Your task to perform on an android device: Go to calendar. Show me events next week Image 0: 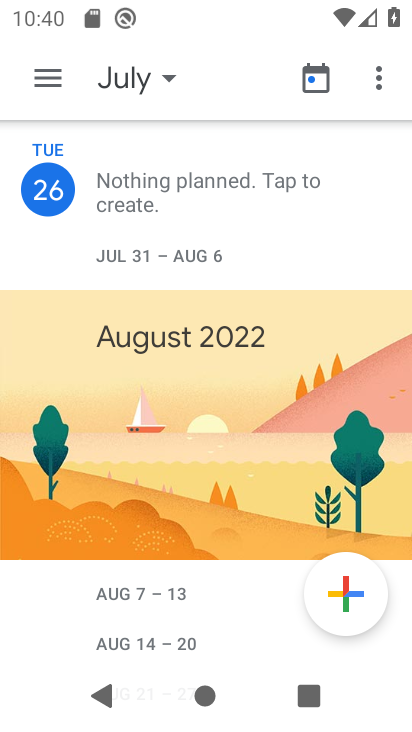
Step 0: press back button
Your task to perform on an android device: Go to calendar. Show me events next week Image 1: 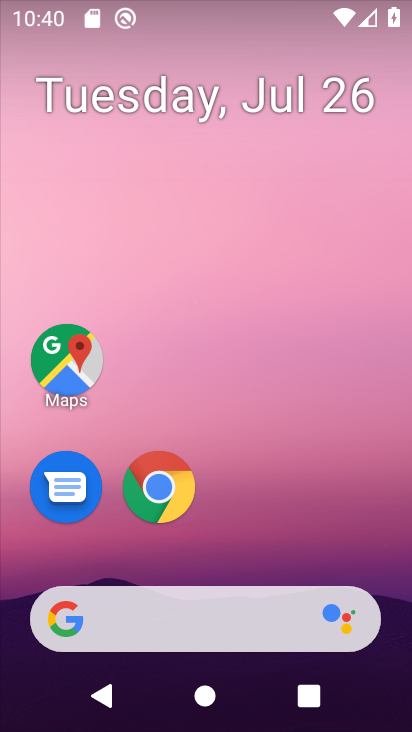
Step 1: drag from (193, 511) to (243, 3)
Your task to perform on an android device: Go to calendar. Show me events next week Image 2: 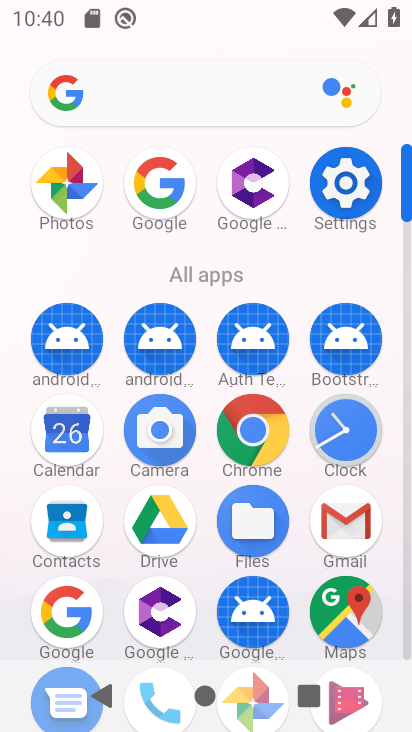
Step 2: click (60, 443)
Your task to perform on an android device: Go to calendar. Show me events next week Image 3: 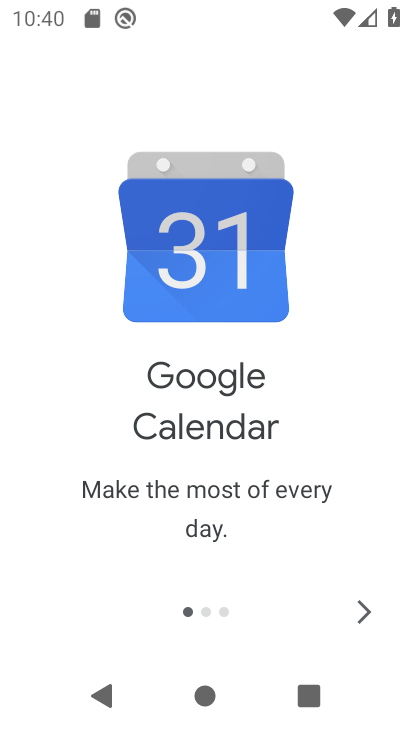
Step 3: click (348, 627)
Your task to perform on an android device: Go to calendar. Show me events next week Image 4: 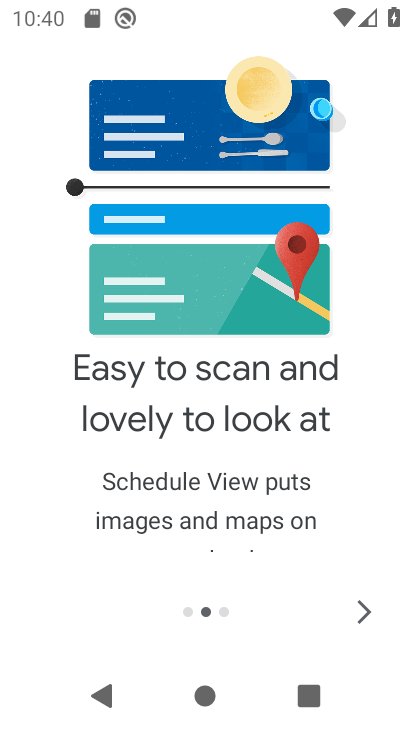
Step 4: click (349, 617)
Your task to perform on an android device: Go to calendar. Show me events next week Image 5: 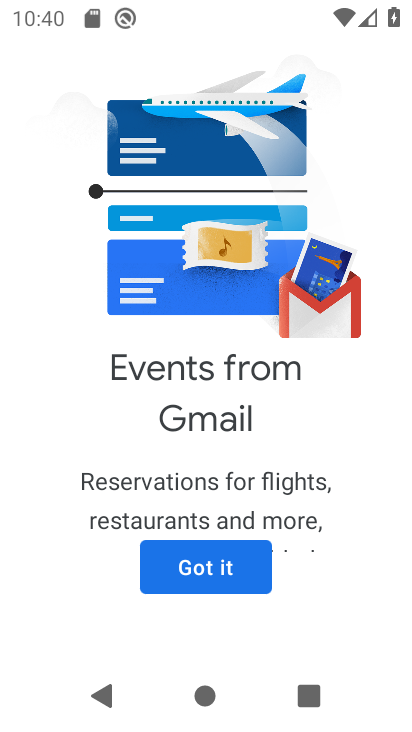
Step 5: click (232, 556)
Your task to perform on an android device: Go to calendar. Show me events next week Image 6: 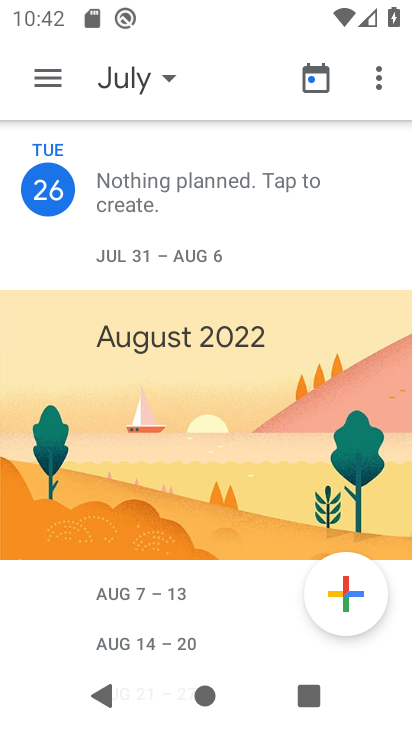
Step 6: click (160, 78)
Your task to perform on an android device: Go to calendar. Show me events next week Image 7: 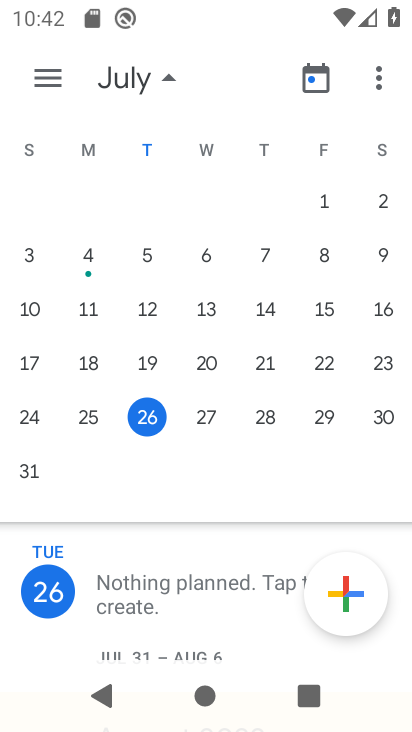
Step 7: drag from (381, 304) to (4, 316)
Your task to perform on an android device: Go to calendar. Show me events next week Image 8: 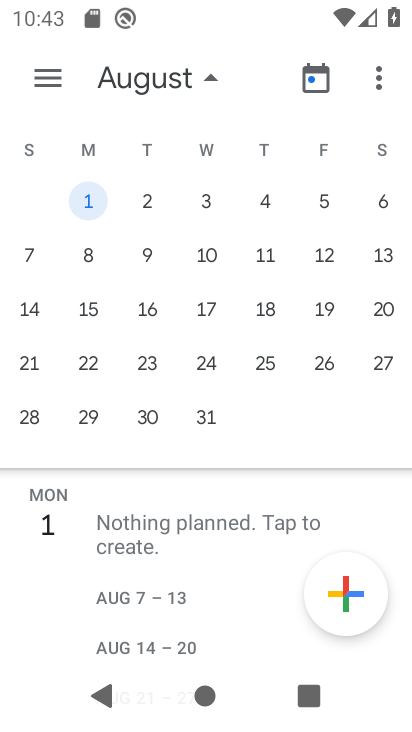
Step 8: drag from (32, 307) to (410, 307)
Your task to perform on an android device: Go to calendar. Show me events next week Image 9: 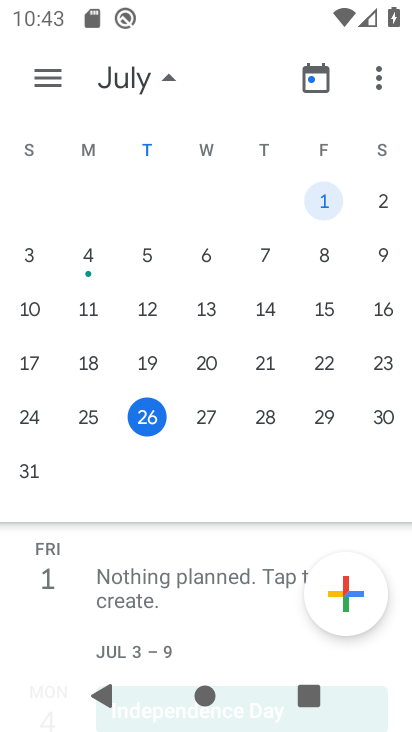
Step 9: click (99, 414)
Your task to perform on an android device: Go to calendar. Show me events next week Image 10: 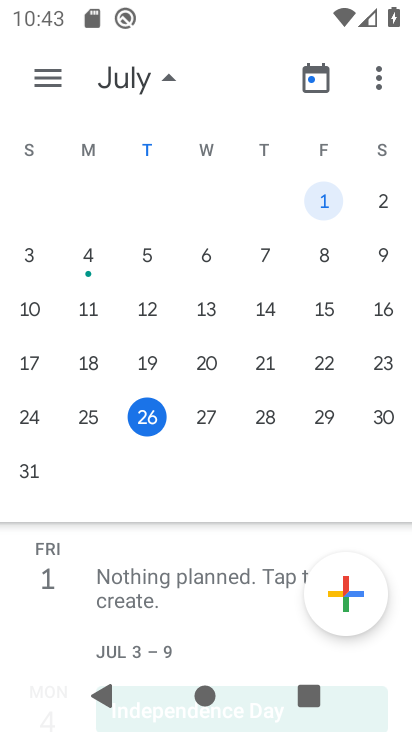
Step 10: click (171, 415)
Your task to perform on an android device: Go to calendar. Show me events next week Image 11: 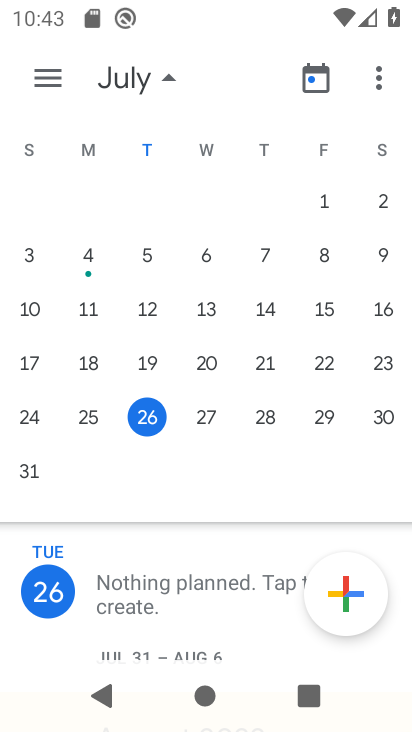
Step 11: task complete